Your task to perform on an android device: toggle javascript in the chrome app Image 0: 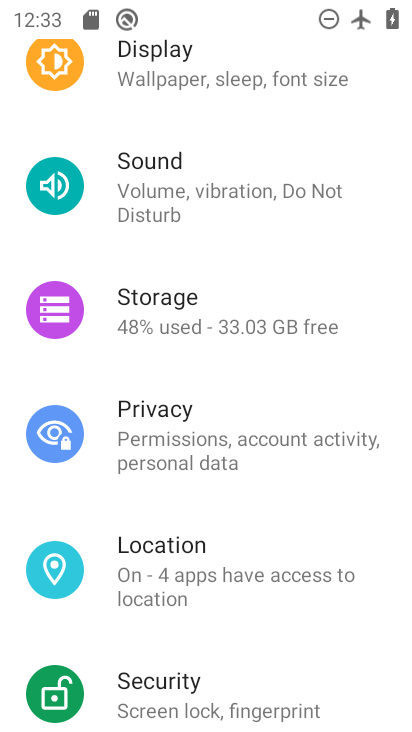
Step 0: press home button
Your task to perform on an android device: toggle javascript in the chrome app Image 1: 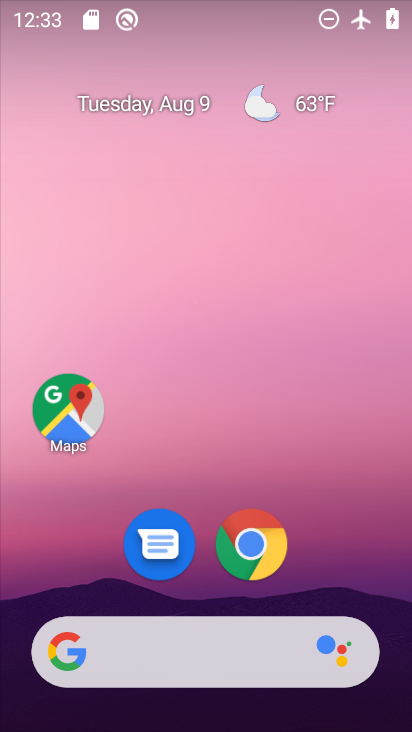
Step 1: click (251, 540)
Your task to perform on an android device: toggle javascript in the chrome app Image 2: 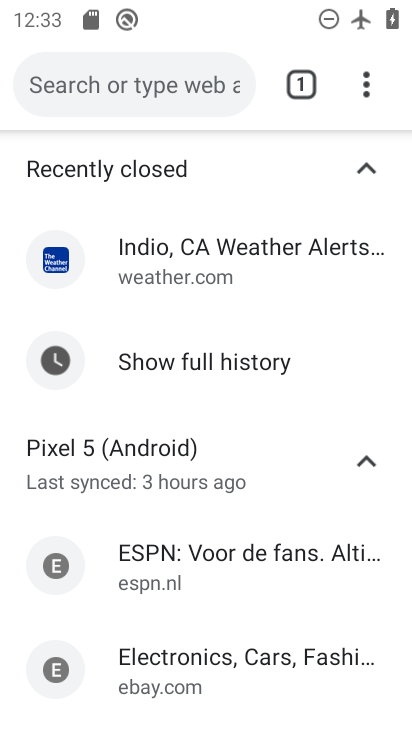
Step 2: click (367, 87)
Your task to perform on an android device: toggle javascript in the chrome app Image 3: 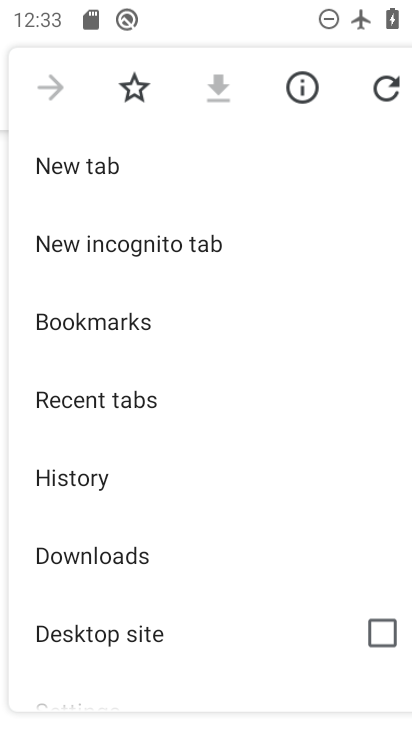
Step 3: drag from (144, 487) to (180, 386)
Your task to perform on an android device: toggle javascript in the chrome app Image 4: 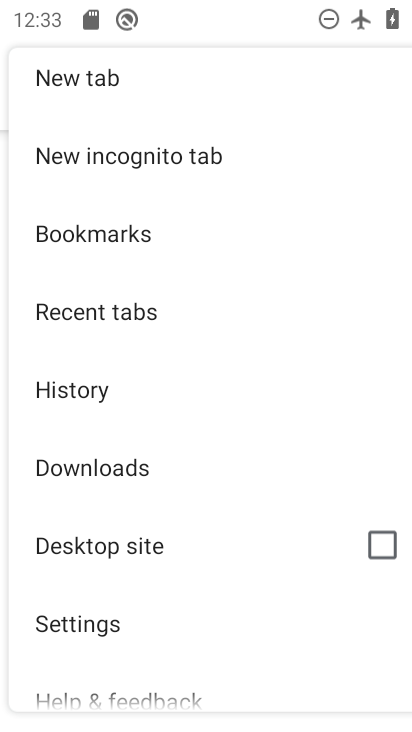
Step 4: drag from (125, 508) to (188, 403)
Your task to perform on an android device: toggle javascript in the chrome app Image 5: 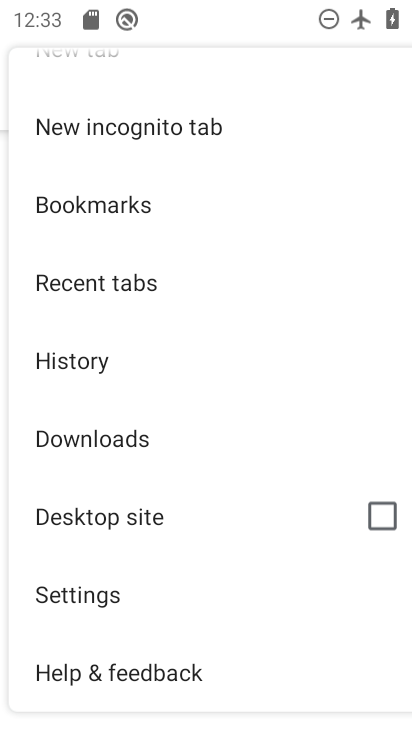
Step 5: click (109, 589)
Your task to perform on an android device: toggle javascript in the chrome app Image 6: 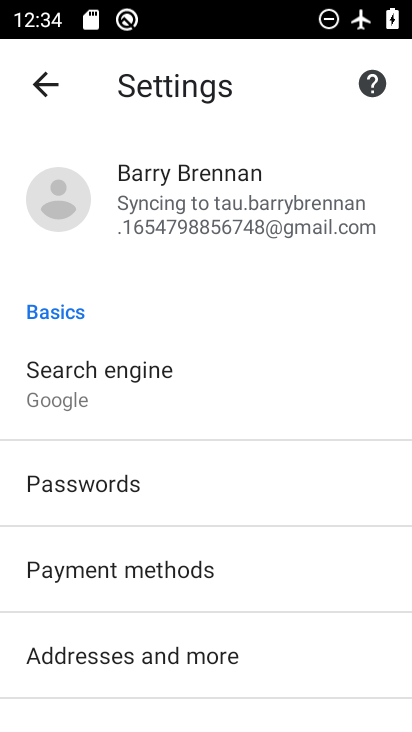
Step 6: drag from (182, 504) to (205, 428)
Your task to perform on an android device: toggle javascript in the chrome app Image 7: 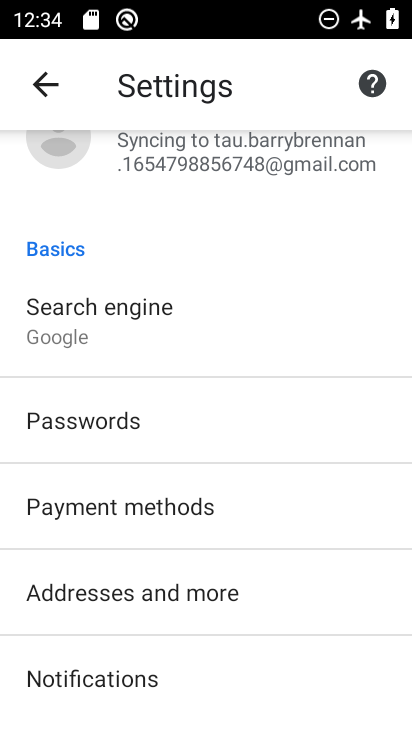
Step 7: drag from (139, 610) to (203, 495)
Your task to perform on an android device: toggle javascript in the chrome app Image 8: 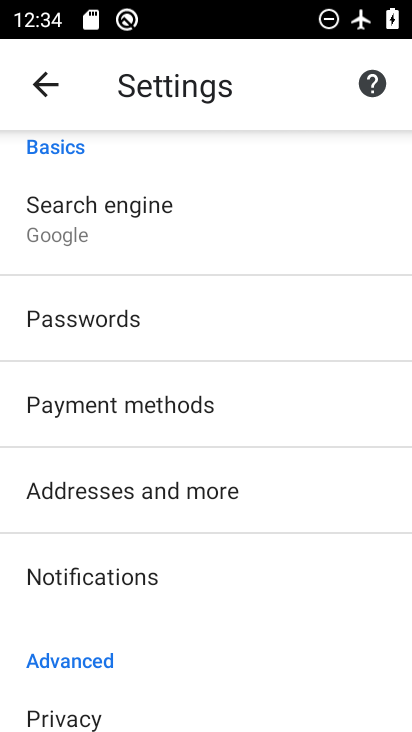
Step 8: drag from (129, 636) to (178, 512)
Your task to perform on an android device: toggle javascript in the chrome app Image 9: 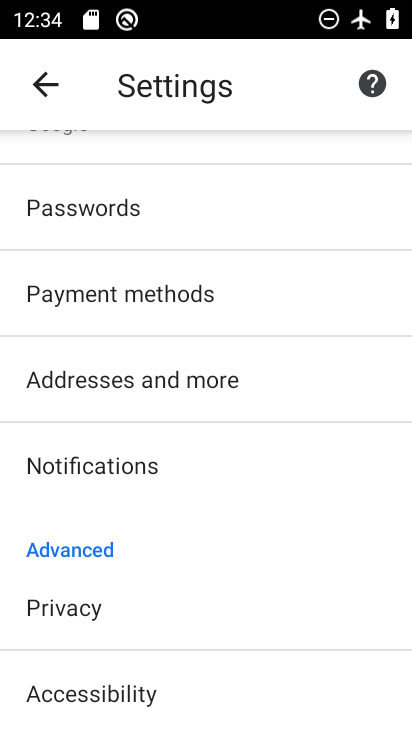
Step 9: drag from (98, 658) to (191, 455)
Your task to perform on an android device: toggle javascript in the chrome app Image 10: 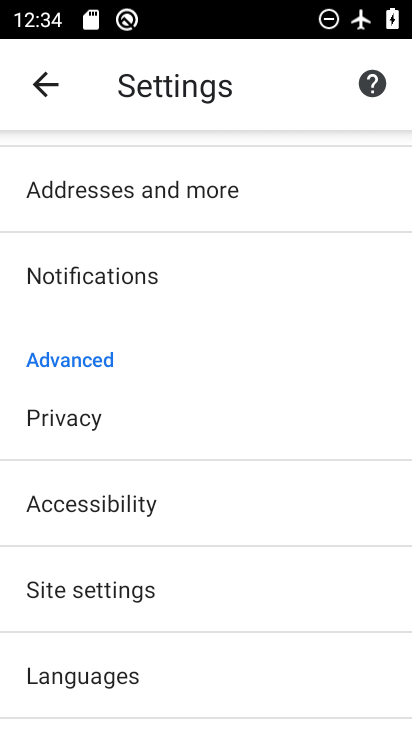
Step 10: click (121, 590)
Your task to perform on an android device: toggle javascript in the chrome app Image 11: 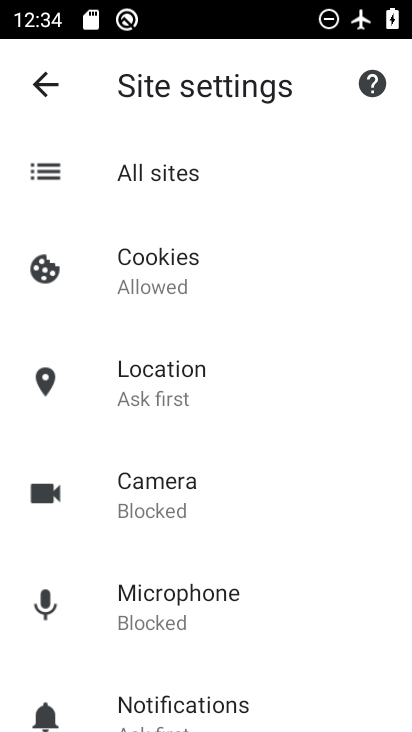
Step 11: drag from (198, 653) to (236, 542)
Your task to perform on an android device: toggle javascript in the chrome app Image 12: 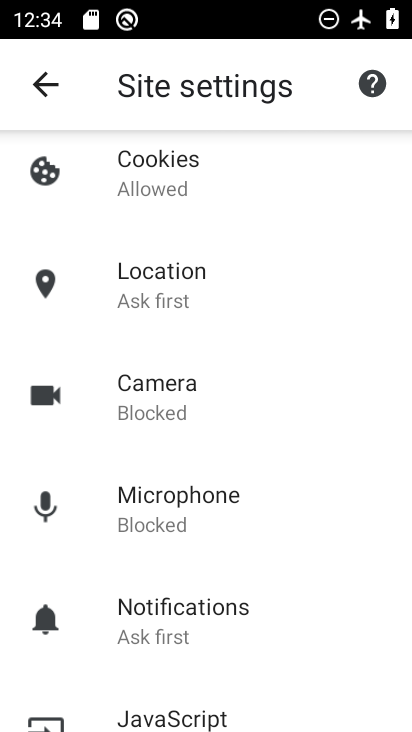
Step 12: drag from (193, 663) to (255, 520)
Your task to perform on an android device: toggle javascript in the chrome app Image 13: 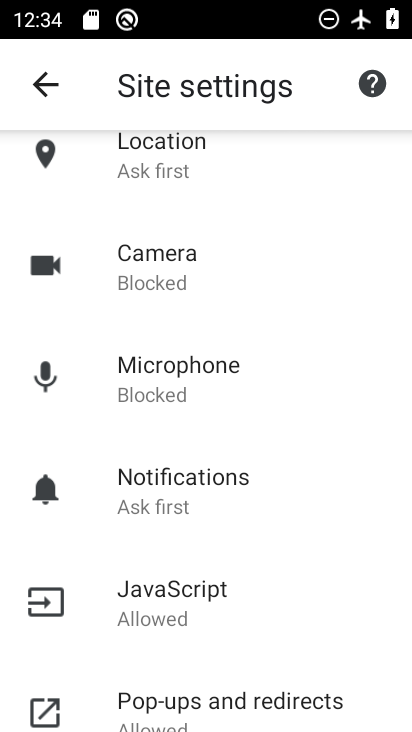
Step 13: click (201, 588)
Your task to perform on an android device: toggle javascript in the chrome app Image 14: 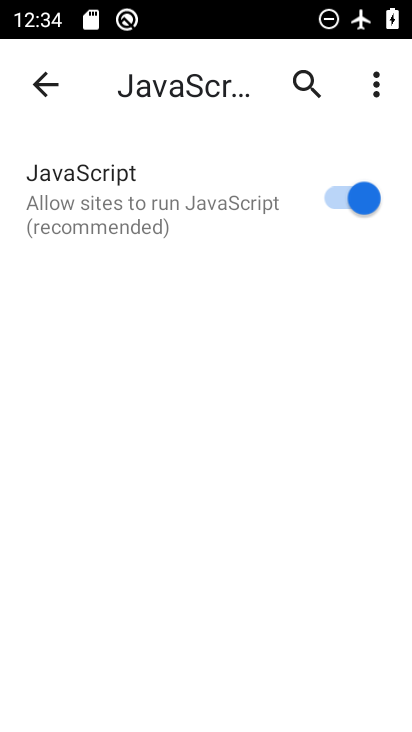
Step 14: click (336, 204)
Your task to perform on an android device: toggle javascript in the chrome app Image 15: 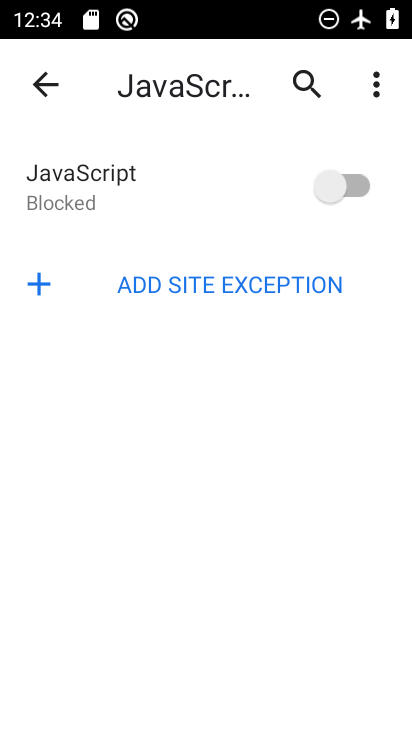
Step 15: task complete